Your task to perform on an android device: Clear all items from cart on bestbuy.com. Image 0: 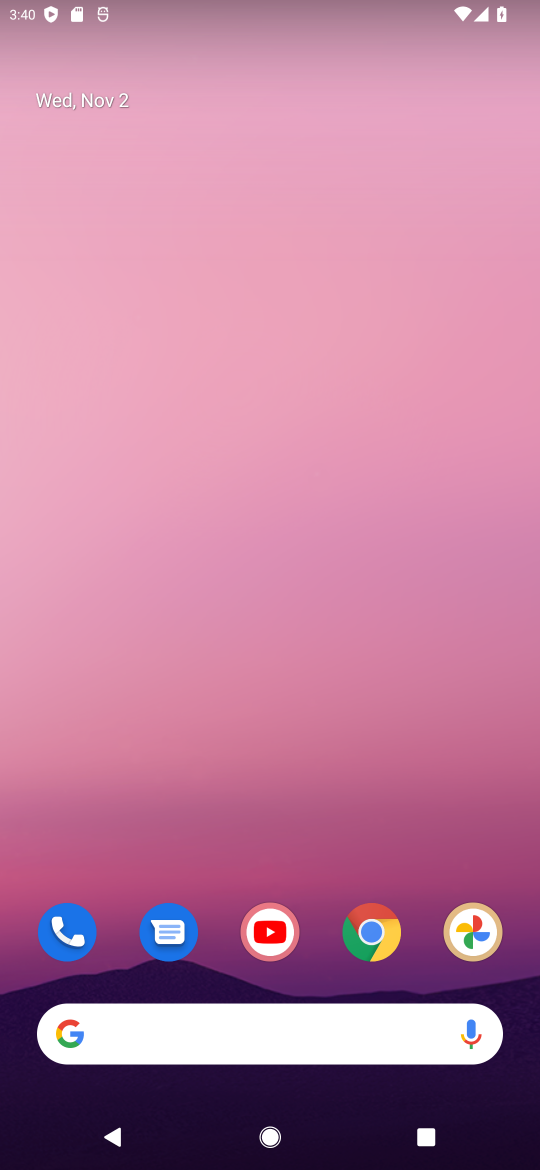
Step 0: click (383, 926)
Your task to perform on an android device: Clear all items from cart on bestbuy.com. Image 1: 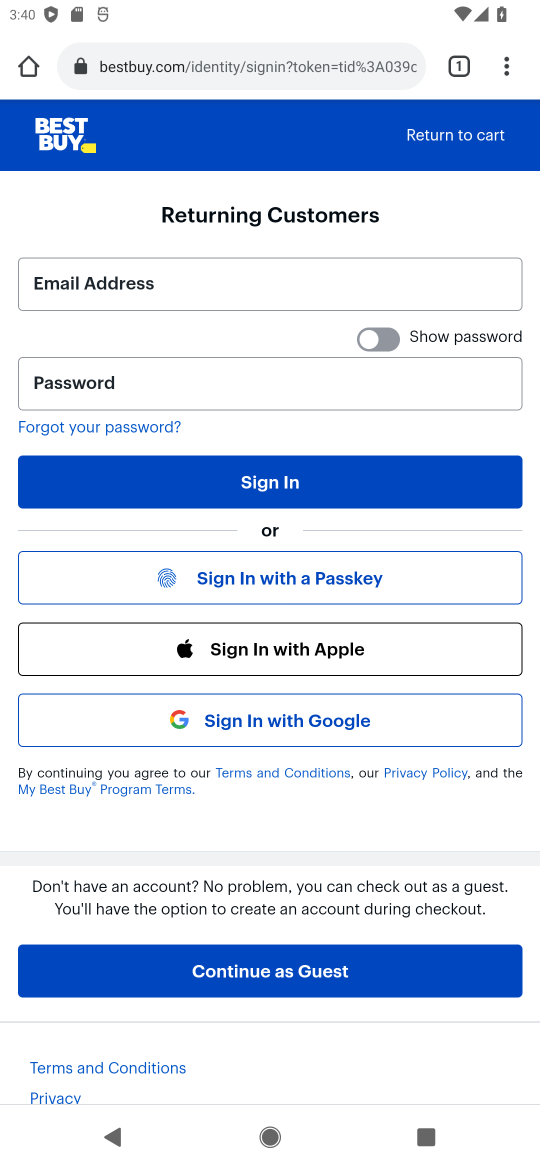
Step 1: click (303, 55)
Your task to perform on an android device: Clear all items from cart on bestbuy.com. Image 2: 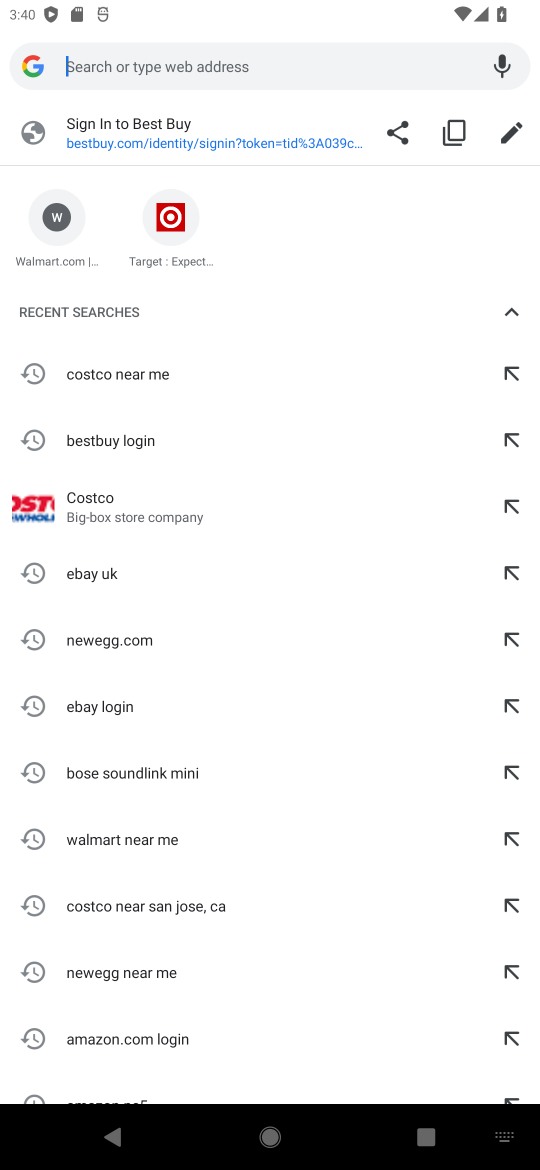
Step 2: click (121, 427)
Your task to perform on an android device: Clear all items from cart on bestbuy.com. Image 3: 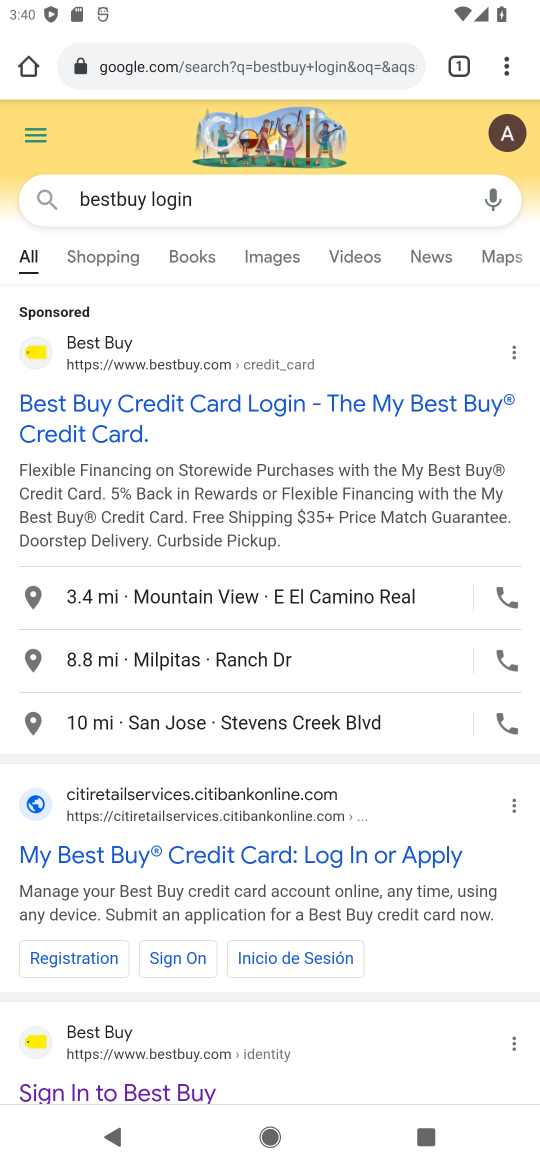
Step 3: click (140, 355)
Your task to perform on an android device: Clear all items from cart on bestbuy.com. Image 4: 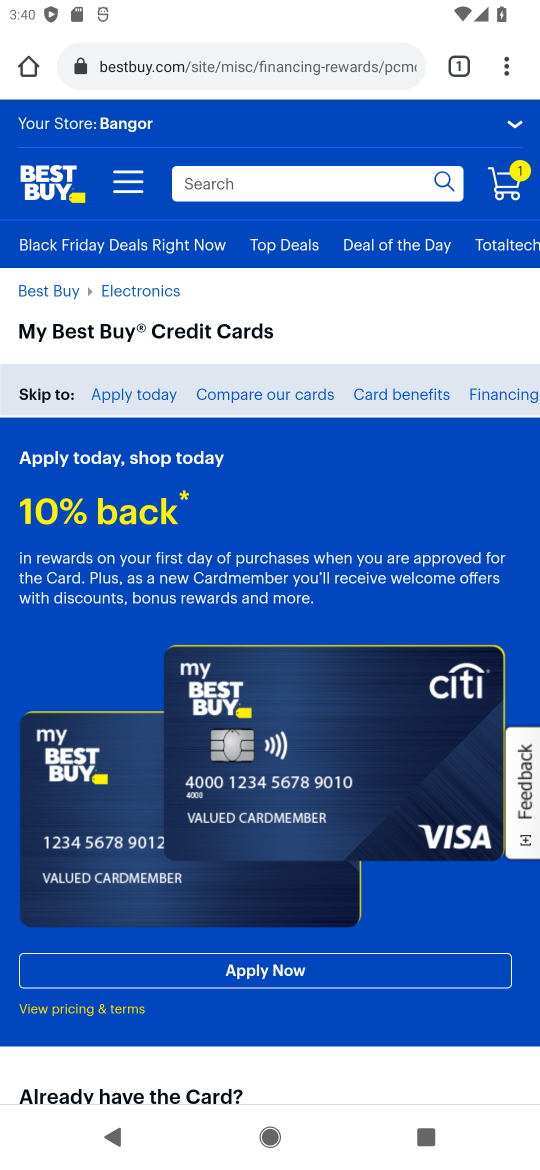
Step 4: click (504, 183)
Your task to perform on an android device: Clear all items from cart on bestbuy.com. Image 5: 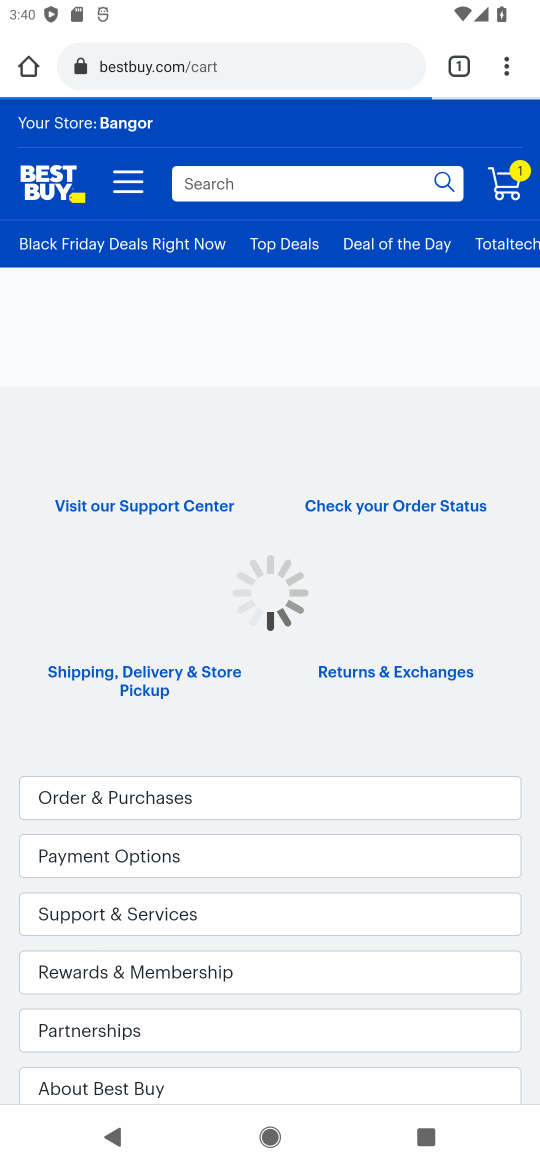
Step 5: click (504, 183)
Your task to perform on an android device: Clear all items from cart on bestbuy.com. Image 6: 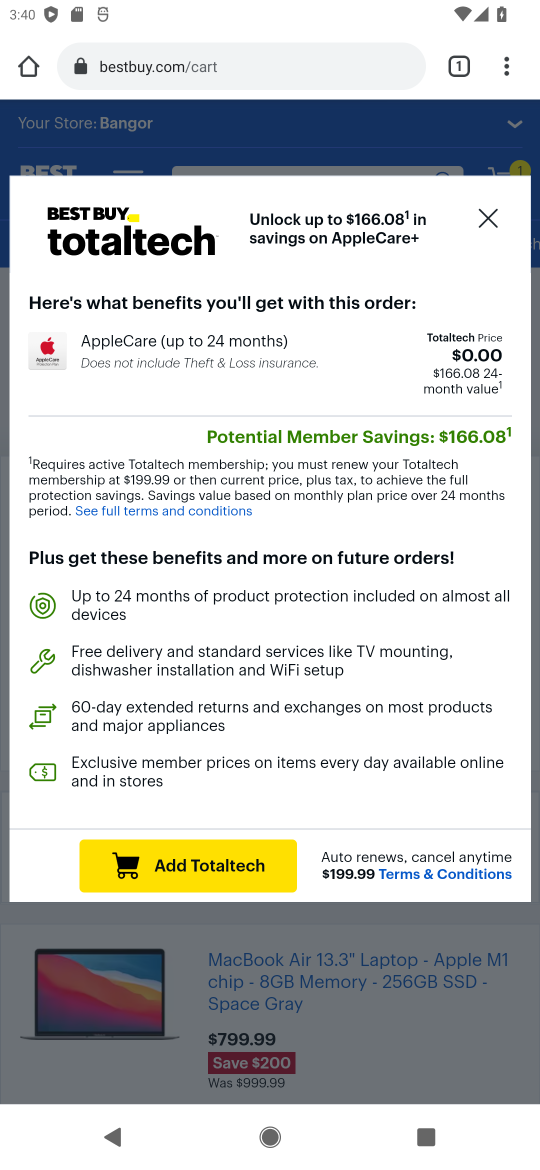
Step 6: click (489, 225)
Your task to perform on an android device: Clear all items from cart on bestbuy.com. Image 7: 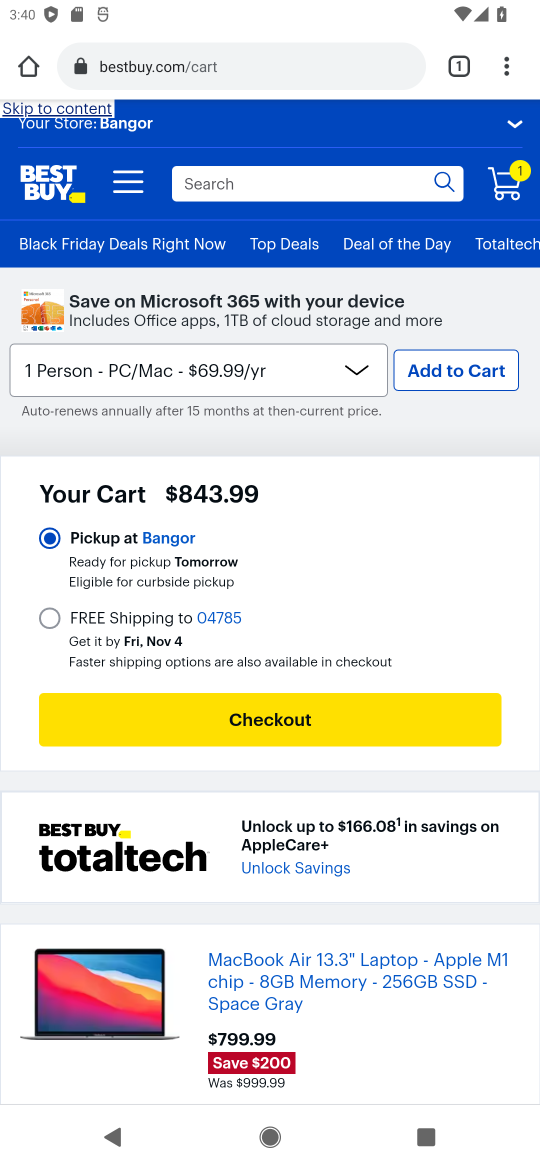
Step 7: click (514, 198)
Your task to perform on an android device: Clear all items from cart on bestbuy.com. Image 8: 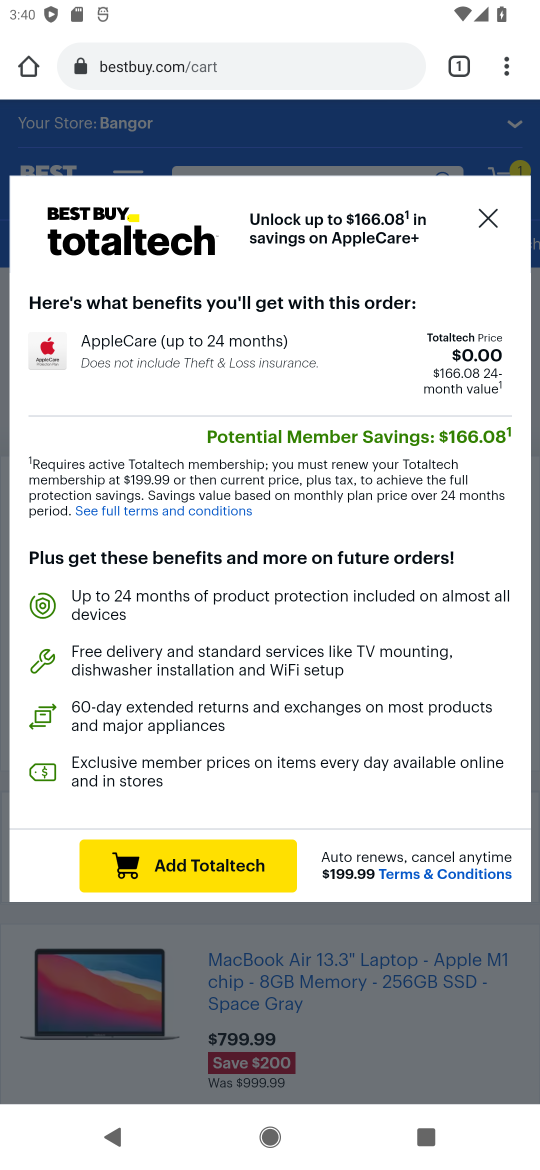
Step 8: click (486, 215)
Your task to perform on an android device: Clear all items from cart on bestbuy.com. Image 9: 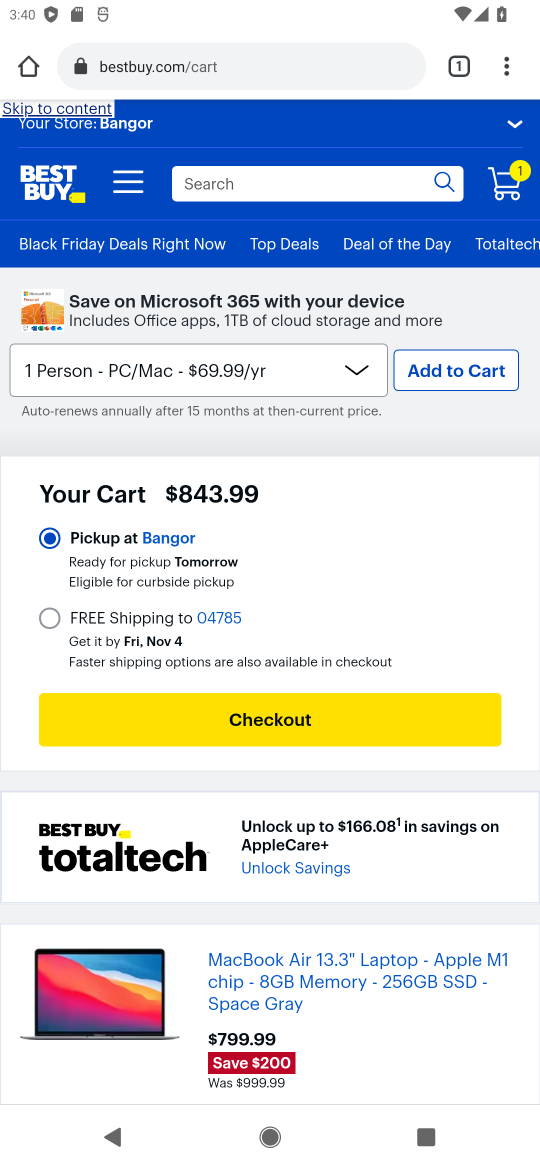
Step 9: drag from (385, 909) to (371, 397)
Your task to perform on an android device: Clear all items from cart on bestbuy.com. Image 10: 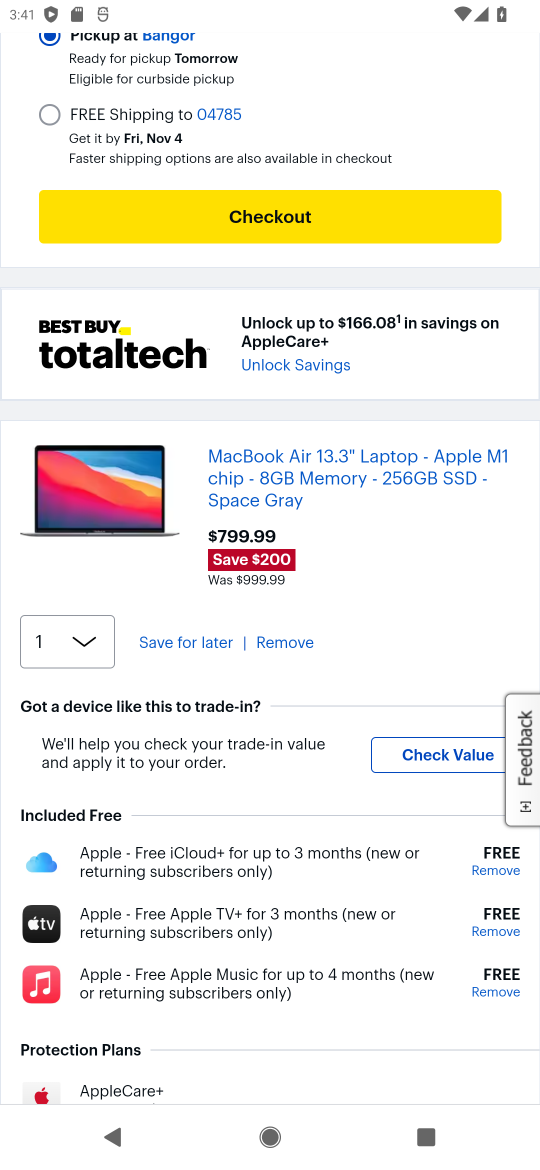
Step 10: click (282, 632)
Your task to perform on an android device: Clear all items from cart on bestbuy.com. Image 11: 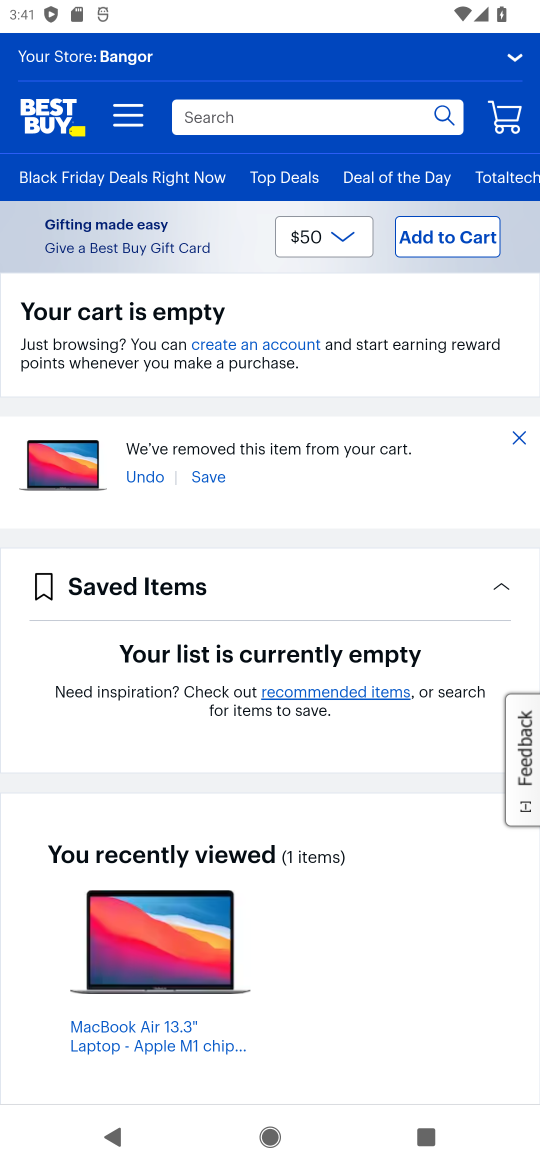
Step 11: task complete